Your task to perform on an android device: Go to Wikipedia Image 0: 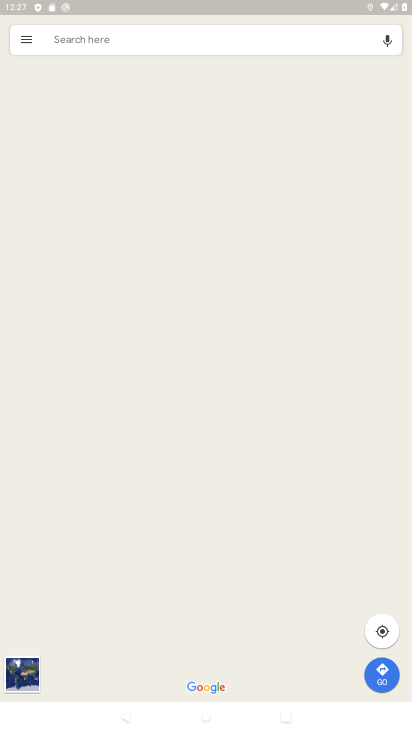
Step 0: press home button
Your task to perform on an android device: Go to Wikipedia Image 1: 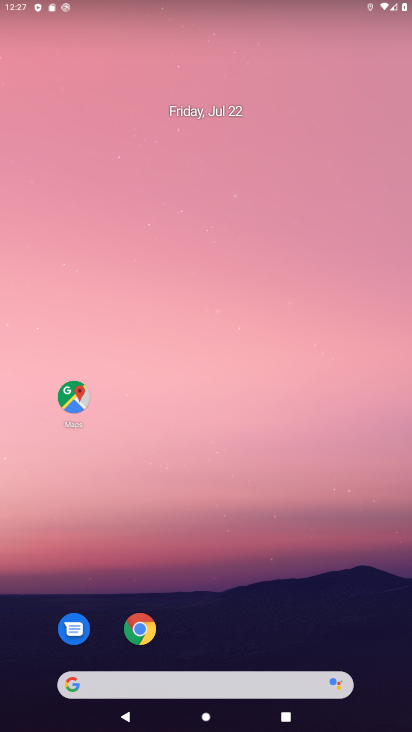
Step 1: drag from (193, 644) to (257, 128)
Your task to perform on an android device: Go to Wikipedia Image 2: 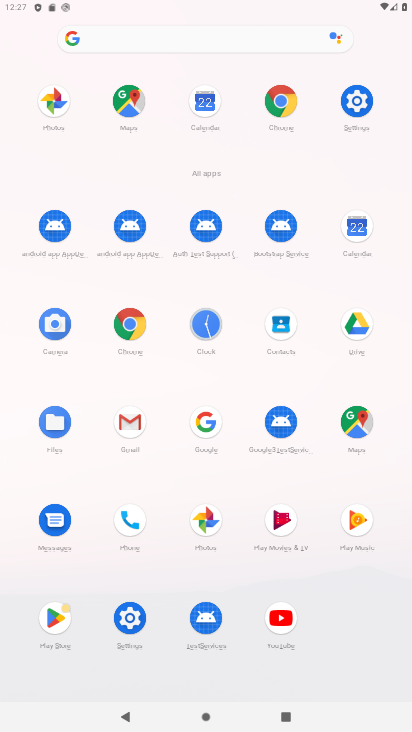
Step 2: click (282, 103)
Your task to perform on an android device: Go to Wikipedia Image 3: 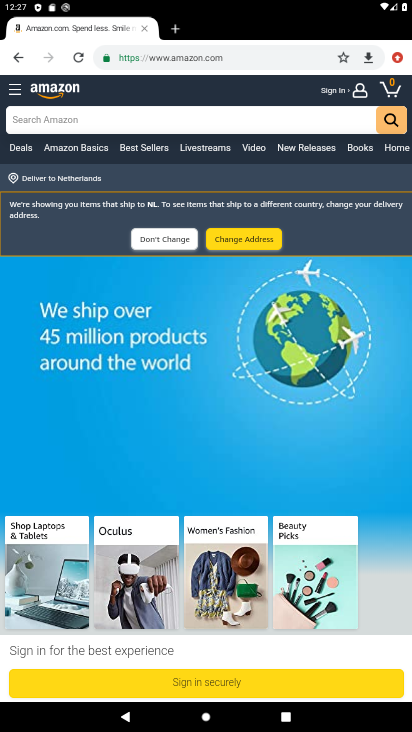
Step 3: click (176, 27)
Your task to perform on an android device: Go to Wikipedia Image 4: 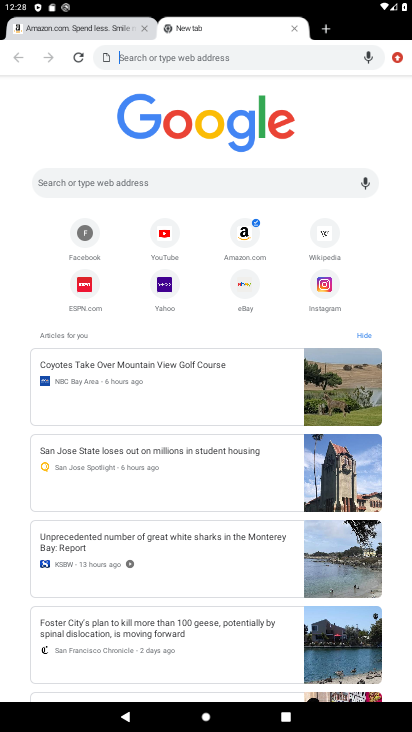
Step 4: click (326, 235)
Your task to perform on an android device: Go to Wikipedia Image 5: 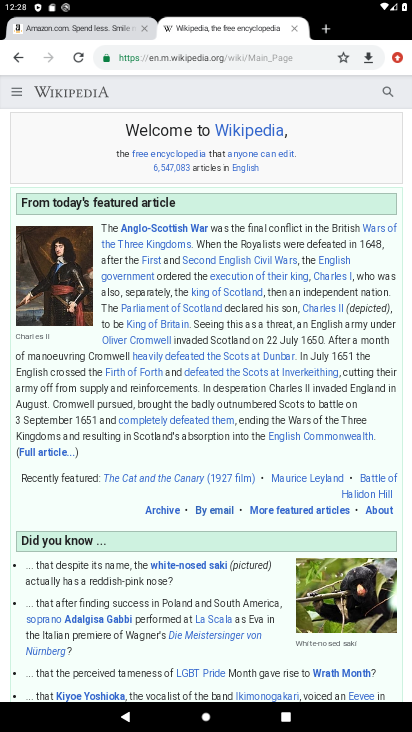
Step 5: task complete